Your task to perform on an android device: all mails in gmail Image 0: 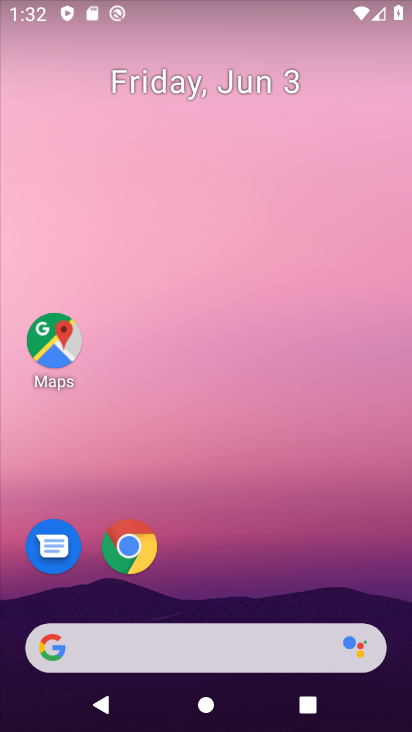
Step 0: drag from (192, 634) to (329, 43)
Your task to perform on an android device: all mails in gmail Image 1: 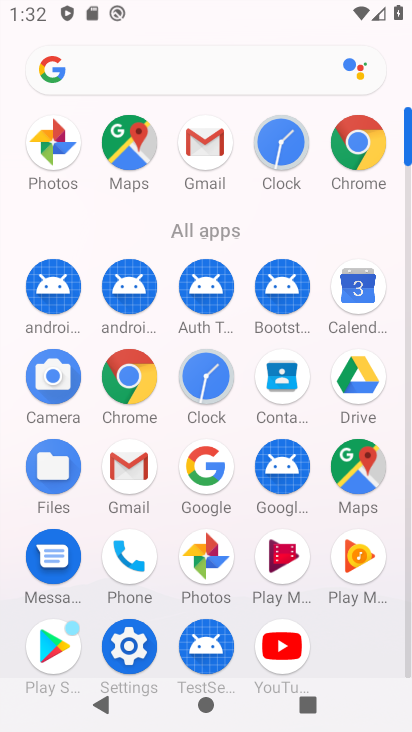
Step 1: click (123, 483)
Your task to perform on an android device: all mails in gmail Image 2: 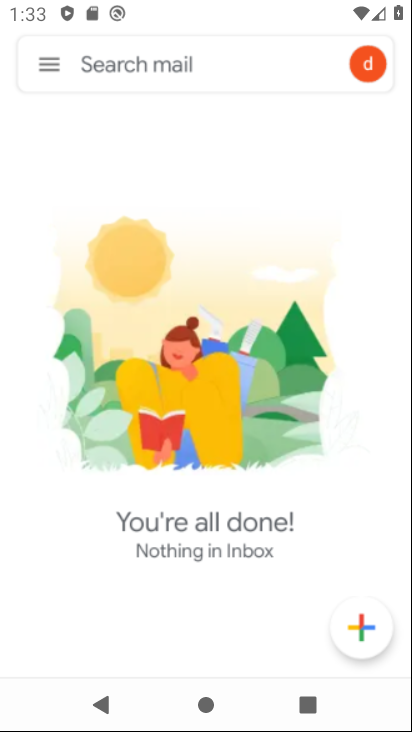
Step 2: click (69, 68)
Your task to perform on an android device: all mails in gmail Image 3: 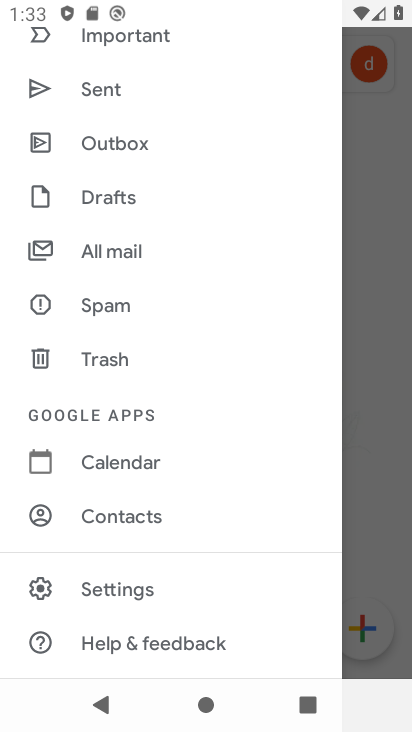
Step 3: click (147, 263)
Your task to perform on an android device: all mails in gmail Image 4: 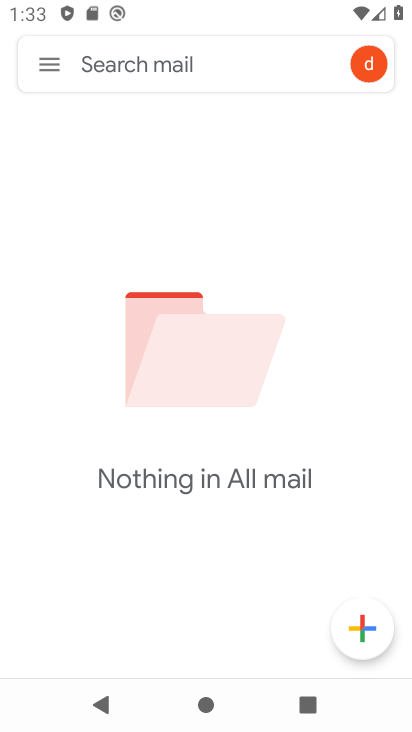
Step 4: task complete